Your task to perform on an android device: Go to Wikipedia Image 0: 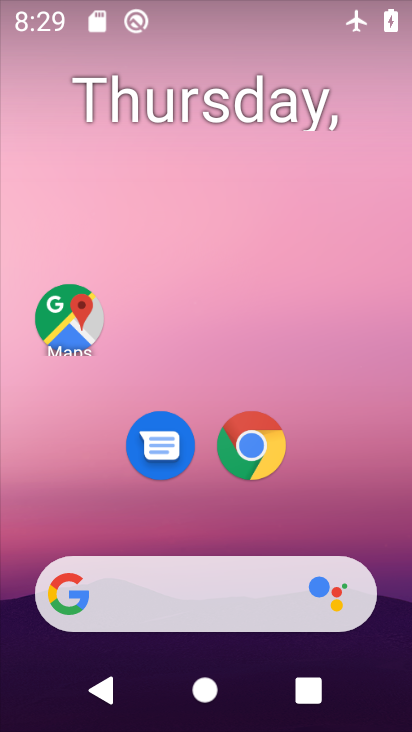
Step 0: click (264, 445)
Your task to perform on an android device: Go to Wikipedia Image 1: 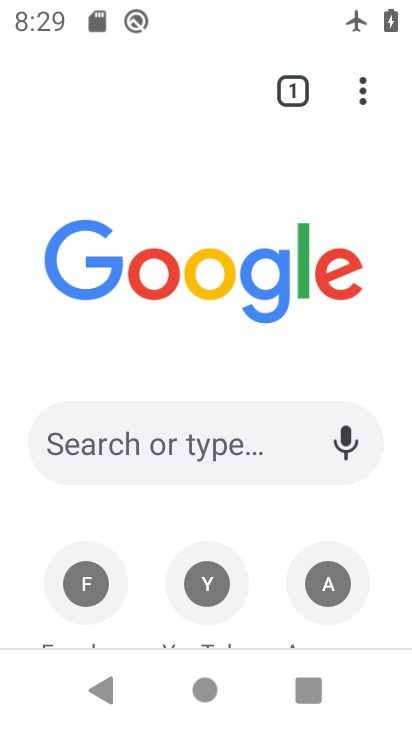
Step 1: drag from (258, 577) to (277, 263)
Your task to perform on an android device: Go to Wikipedia Image 2: 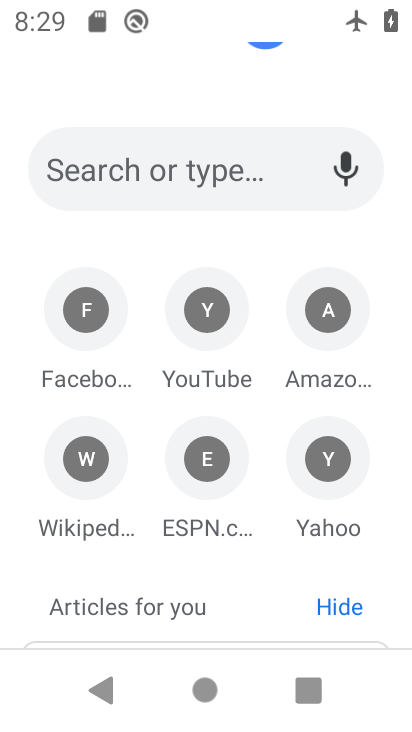
Step 2: click (89, 463)
Your task to perform on an android device: Go to Wikipedia Image 3: 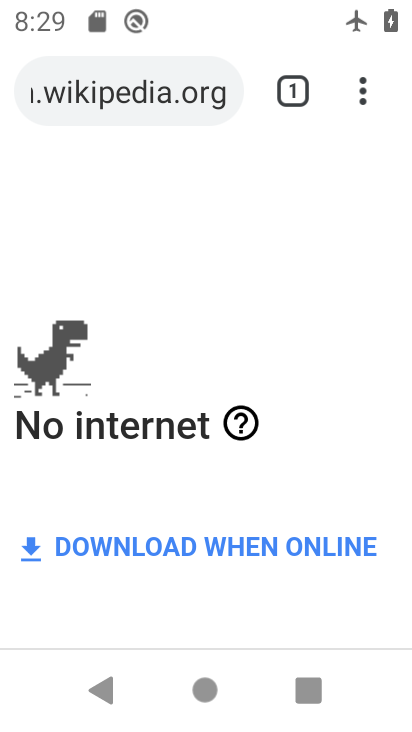
Step 3: task complete